Your task to perform on an android device: Open CNN.com Image 0: 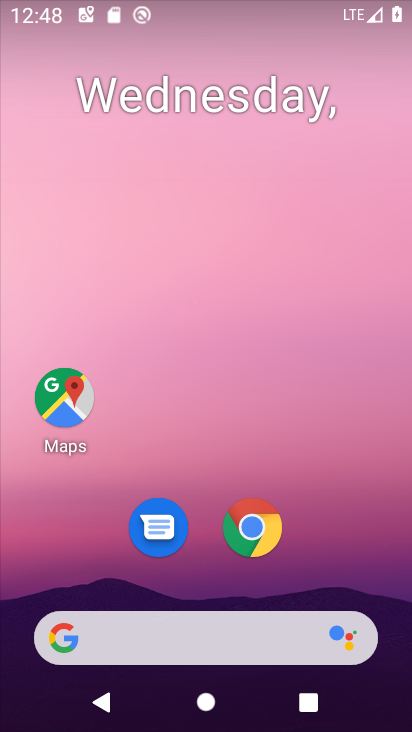
Step 0: drag from (190, 626) to (165, 134)
Your task to perform on an android device: Open CNN.com Image 1: 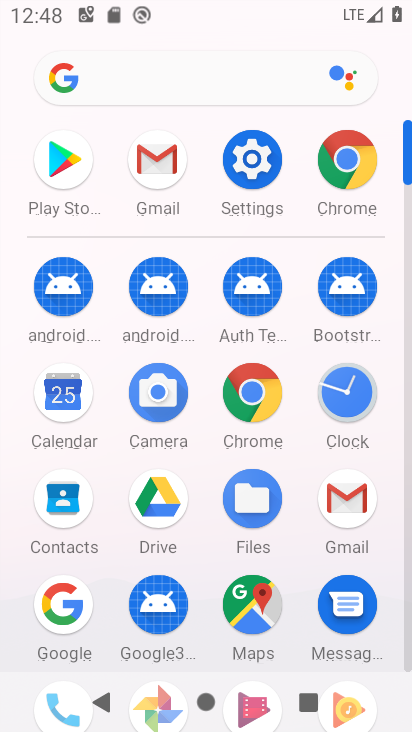
Step 1: click (258, 384)
Your task to perform on an android device: Open CNN.com Image 2: 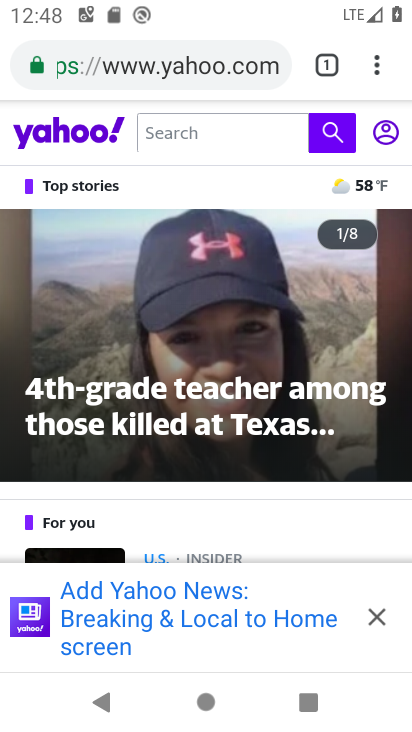
Step 2: click (259, 72)
Your task to perform on an android device: Open CNN.com Image 3: 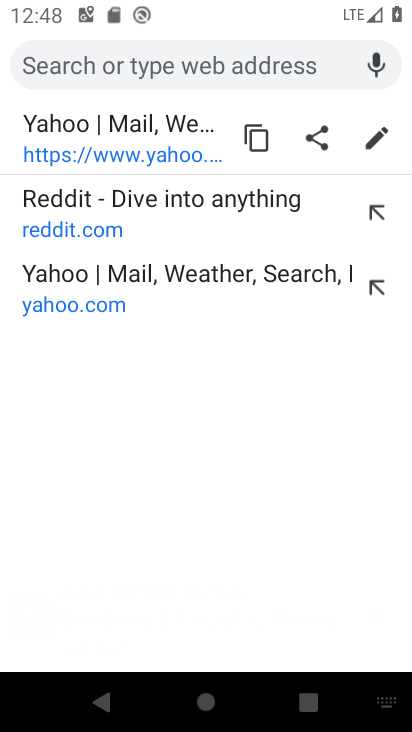
Step 3: type "cnn.com"
Your task to perform on an android device: Open CNN.com Image 4: 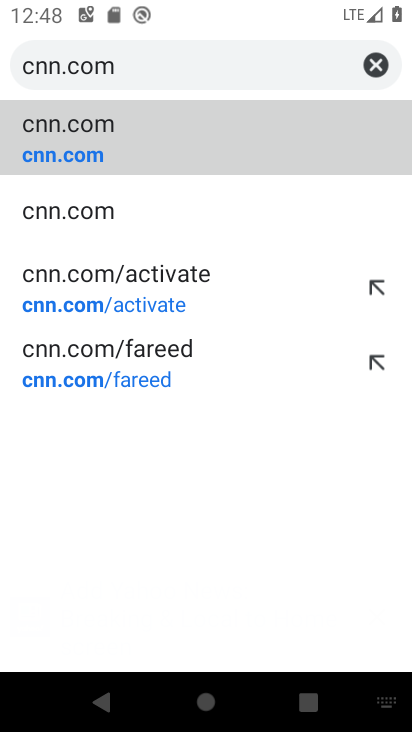
Step 4: click (93, 134)
Your task to perform on an android device: Open CNN.com Image 5: 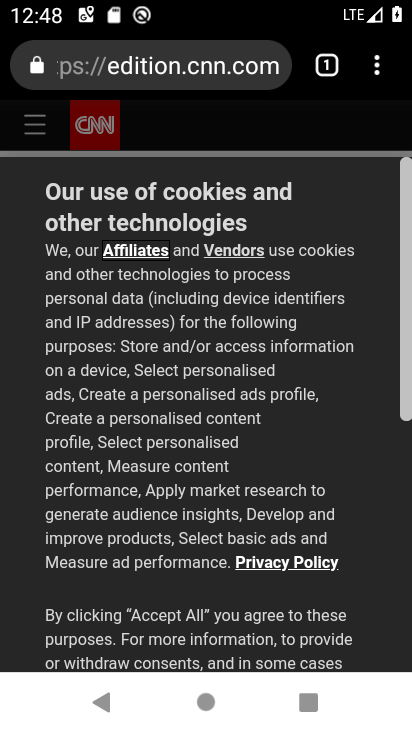
Step 5: task complete